Your task to perform on an android device: Open Google Maps Image 0: 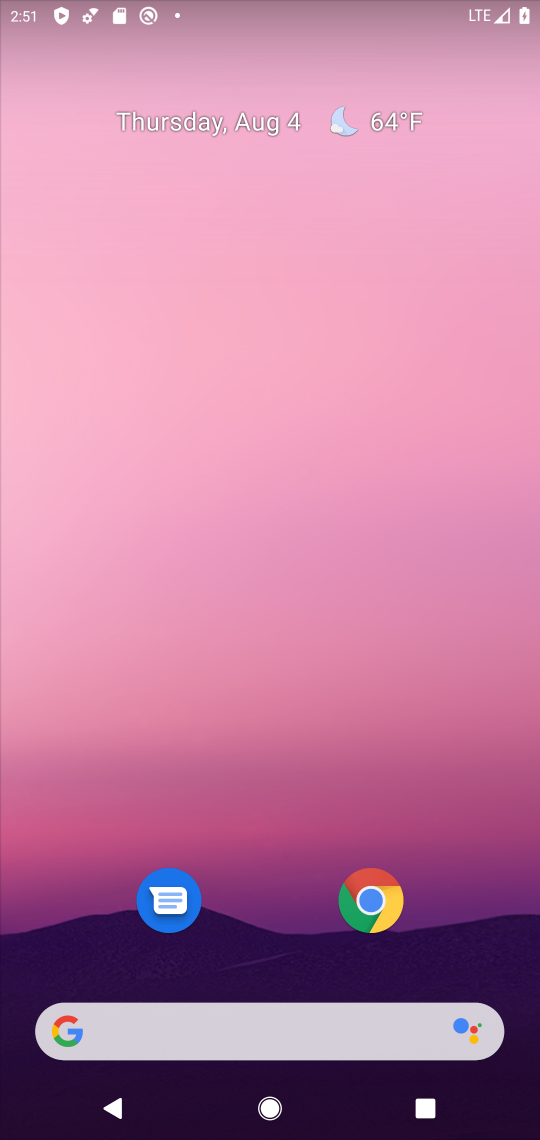
Step 0: drag from (504, 930) to (370, 94)
Your task to perform on an android device: Open Google Maps Image 1: 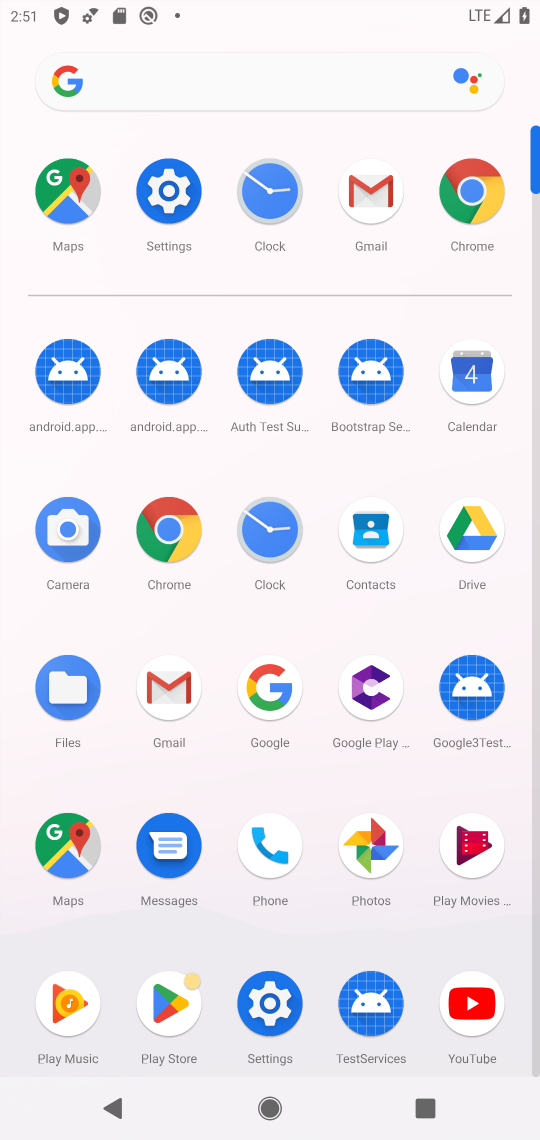
Step 1: click (68, 195)
Your task to perform on an android device: Open Google Maps Image 2: 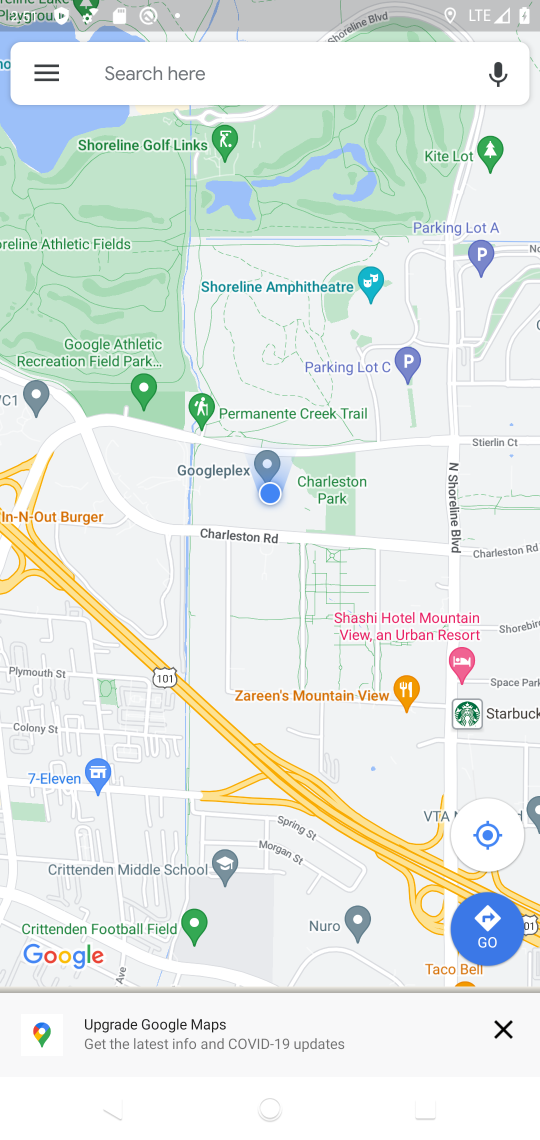
Step 2: task complete